Your task to perform on an android device: turn on translation in the chrome app Image 0: 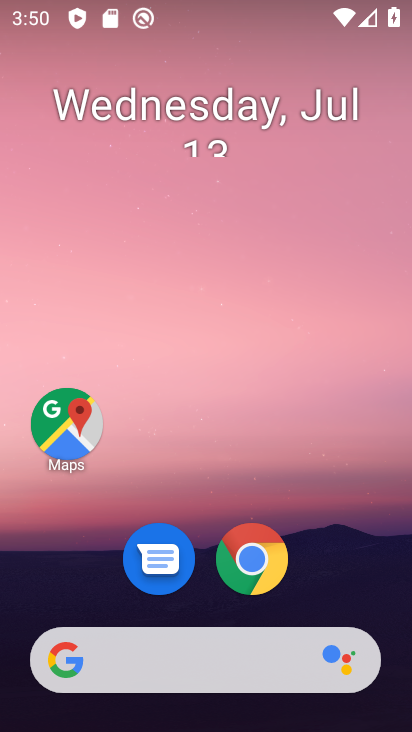
Step 0: drag from (126, 670) to (181, 190)
Your task to perform on an android device: turn on translation in the chrome app Image 1: 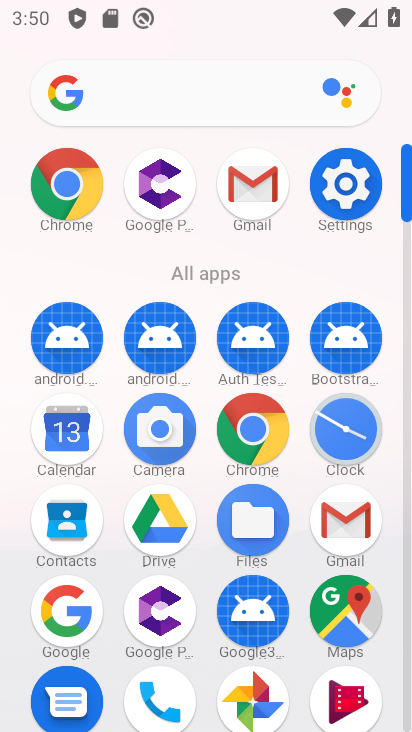
Step 1: click (254, 431)
Your task to perform on an android device: turn on translation in the chrome app Image 2: 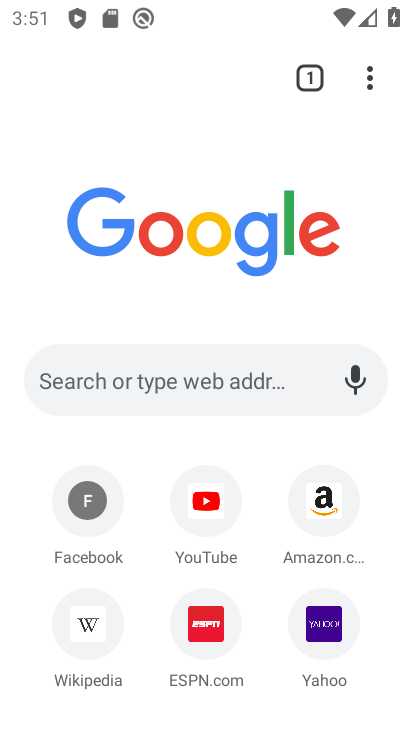
Step 2: click (367, 95)
Your task to perform on an android device: turn on translation in the chrome app Image 3: 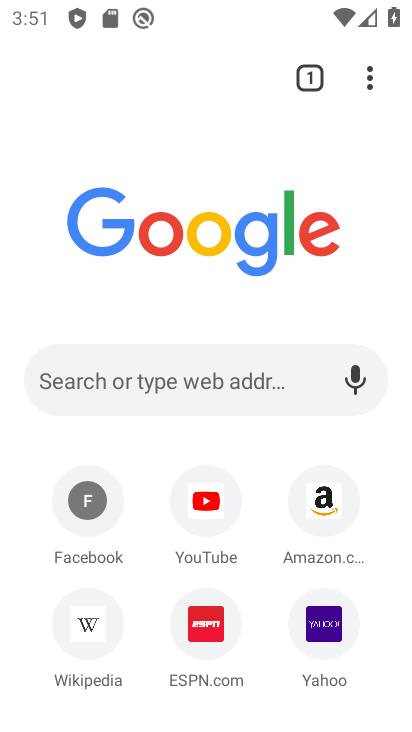
Step 3: click (375, 80)
Your task to perform on an android device: turn on translation in the chrome app Image 4: 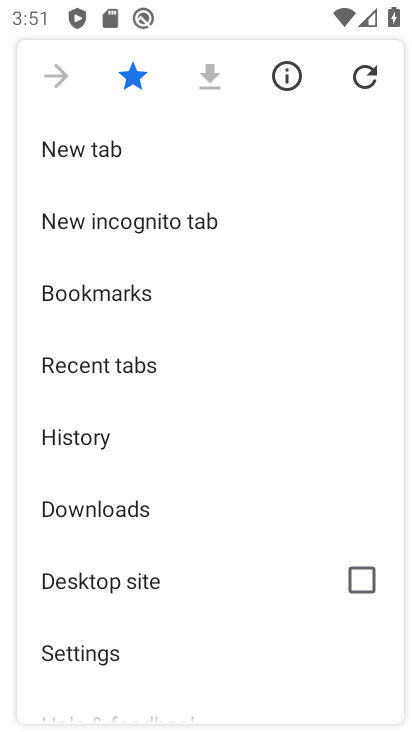
Step 4: click (130, 377)
Your task to perform on an android device: turn on translation in the chrome app Image 5: 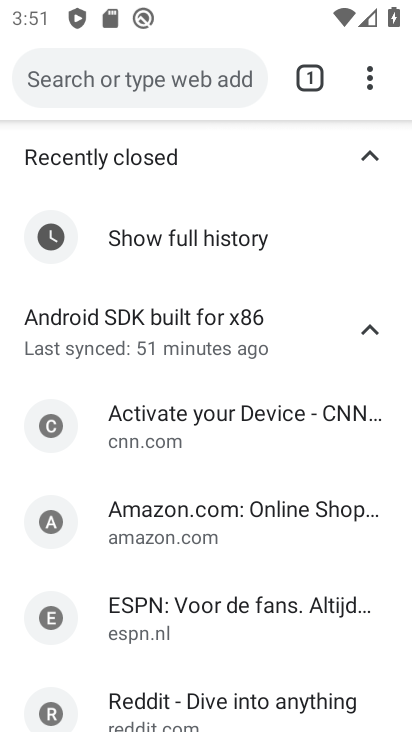
Step 5: task complete